Your task to perform on an android device: Open calendar and show me the second week of next month Image 0: 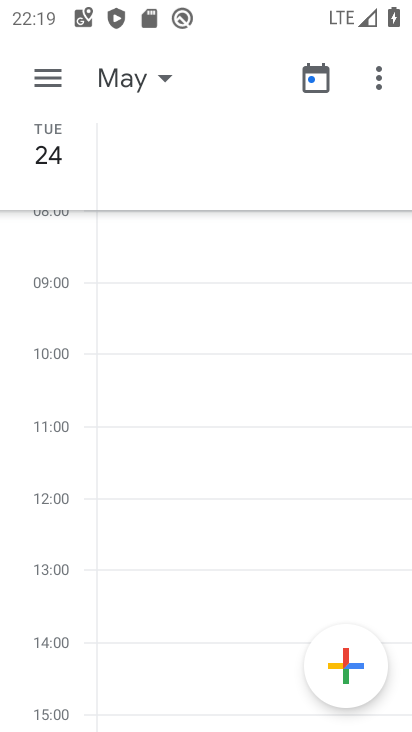
Step 0: press home button
Your task to perform on an android device: Open calendar and show me the second week of next month Image 1: 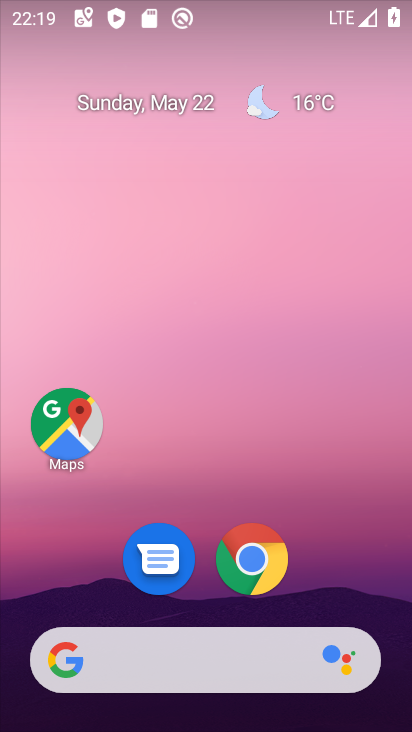
Step 1: drag from (207, 702) to (229, 219)
Your task to perform on an android device: Open calendar and show me the second week of next month Image 2: 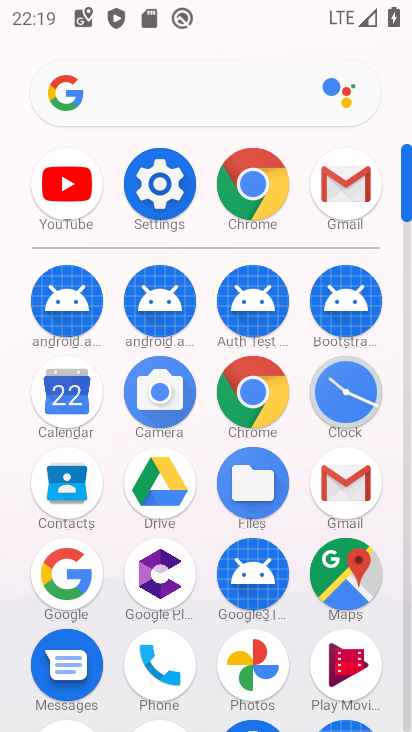
Step 2: click (43, 395)
Your task to perform on an android device: Open calendar and show me the second week of next month Image 3: 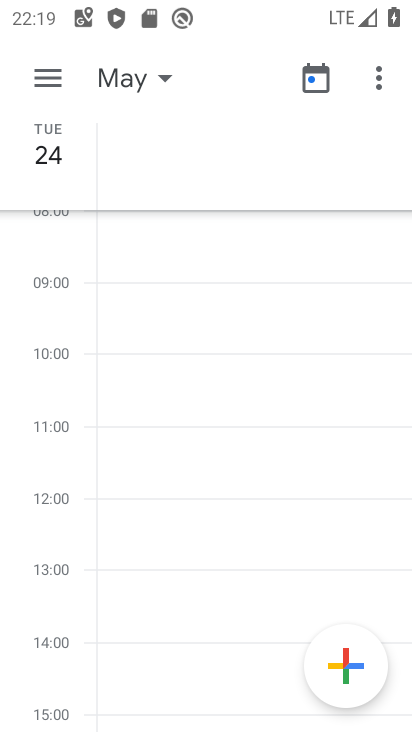
Step 3: click (53, 81)
Your task to perform on an android device: Open calendar and show me the second week of next month Image 4: 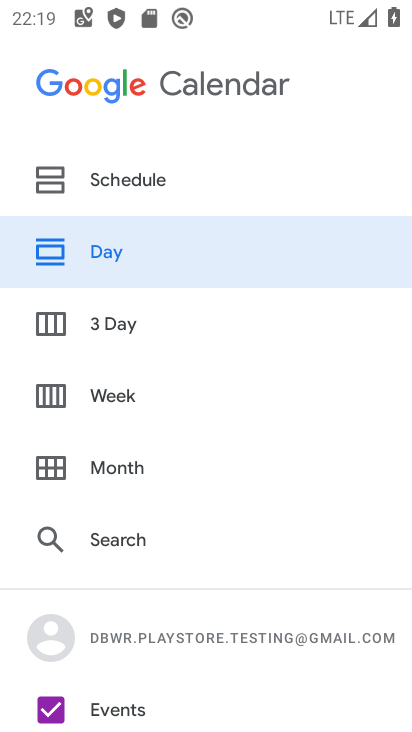
Step 4: click (129, 473)
Your task to perform on an android device: Open calendar and show me the second week of next month Image 5: 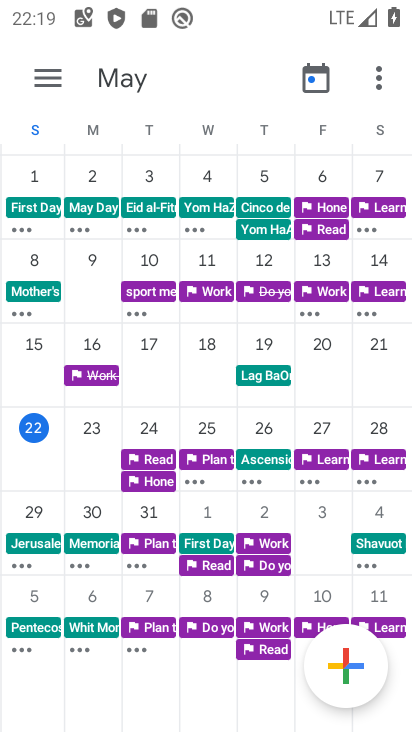
Step 5: drag from (404, 432) to (12, 448)
Your task to perform on an android device: Open calendar and show me the second week of next month Image 6: 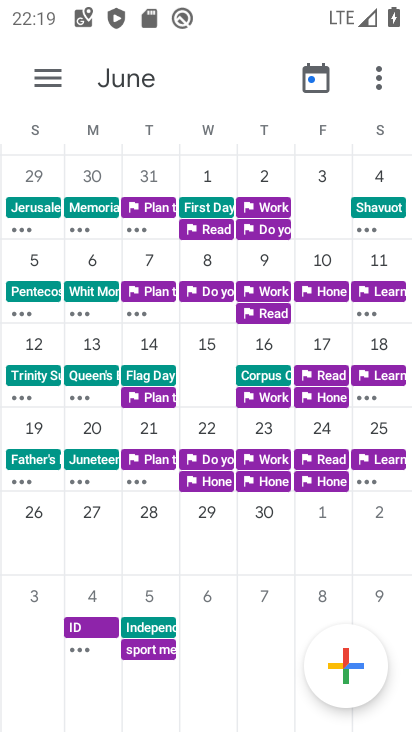
Step 6: click (88, 298)
Your task to perform on an android device: Open calendar and show me the second week of next month Image 7: 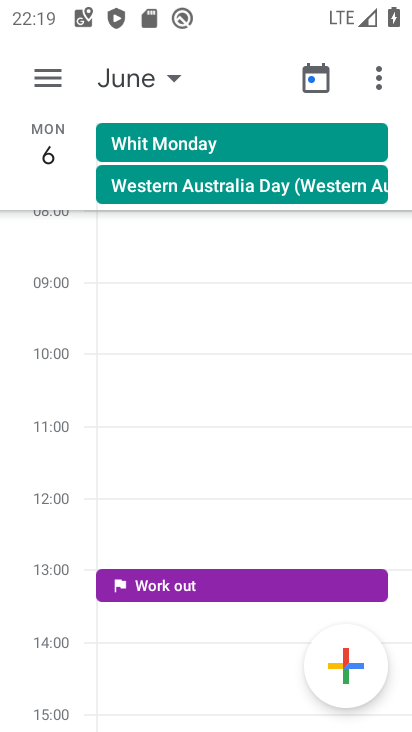
Step 7: task complete